Your task to perform on an android device: Go to Google maps Image 0: 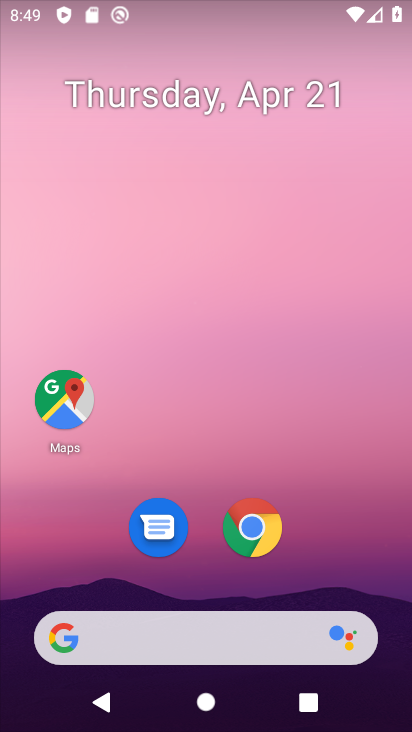
Step 0: drag from (234, 606) to (185, 15)
Your task to perform on an android device: Go to Google maps Image 1: 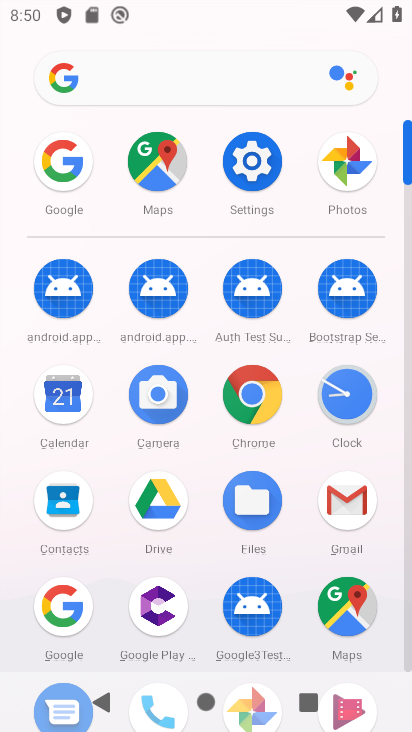
Step 1: click (341, 643)
Your task to perform on an android device: Go to Google maps Image 2: 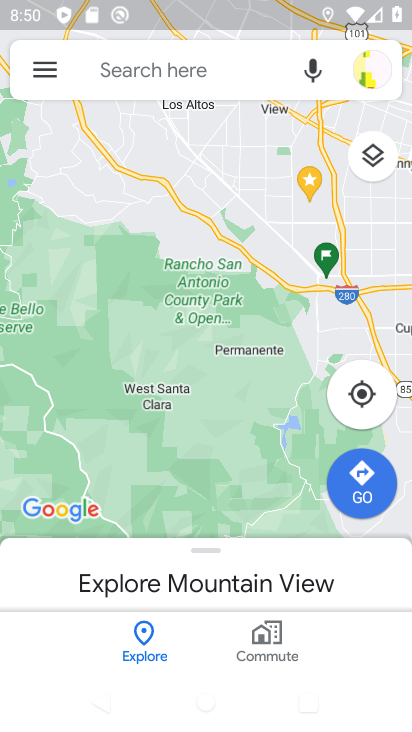
Step 2: task complete